Your task to perform on an android device: Add "razer naga" to the cart on ebay.com Image 0: 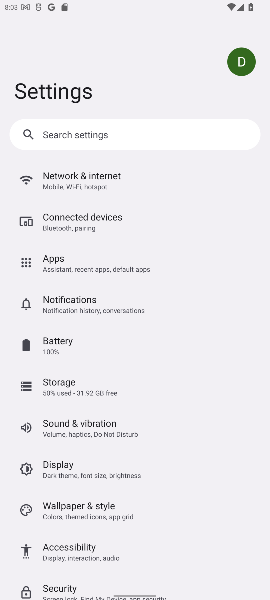
Step 0: press home button
Your task to perform on an android device: Add "razer naga" to the cart on ebay.com Image 1: 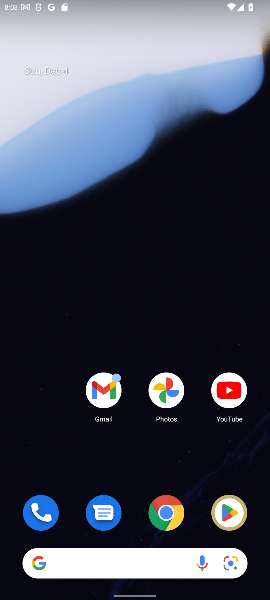
Step 1: click (162, 511)
Your task to perform on an android device: Add "razer naga" to the cart on ebay.com Image 2: 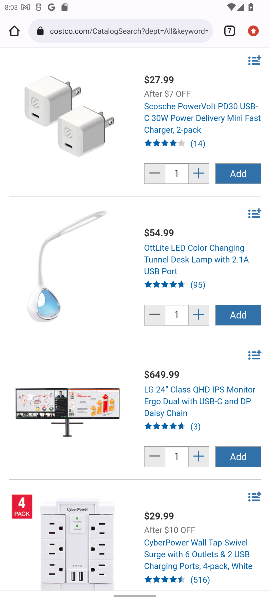
Step 2: click (229, 25)
Your task to perform on an android device: Add "razer naga" to the cart on ebay.com Image 3: 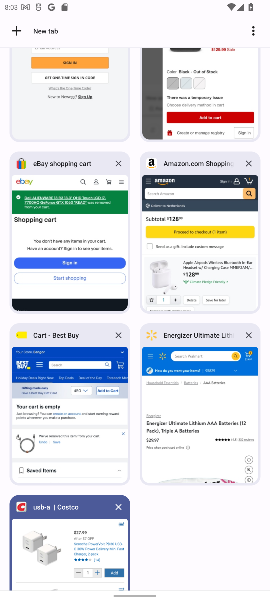
Step 3: click (84, 217)
Your task to perform on an android device: Add "razer naga" to the cart on ebay.com Image 4: 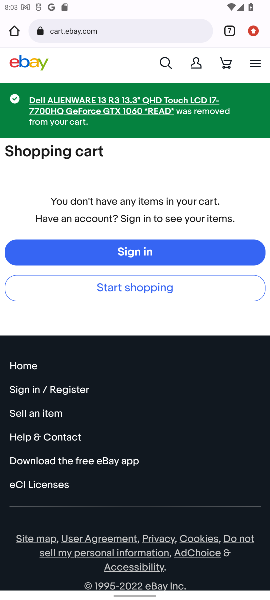
Step 4: click (163, 59)
Your task to perform on an android device: Add "razer naga" to the cart on ebay.com Image 5: 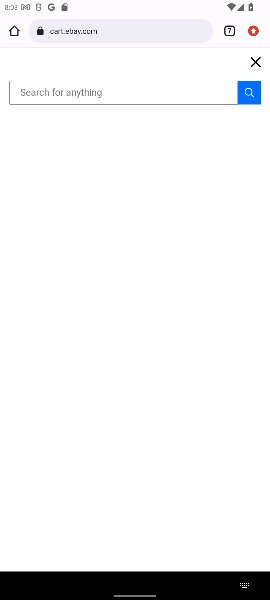
Step 5: type "razer naga"
Your task to perform on an android device: Add "razer naga" to the cart on ebay.com Image 6: 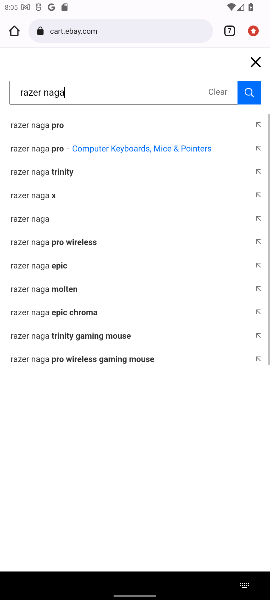
Step 6: click (249, 93)
Your task to perform on an android device: Add "razer naga" to the cart on ebay.com Image 7: 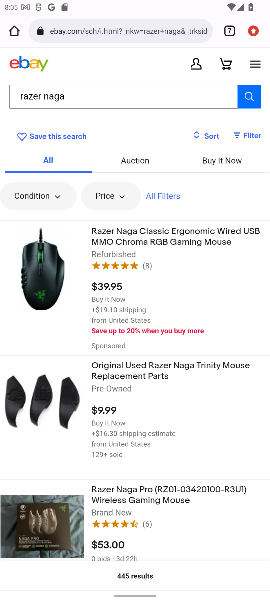
Step 7: click (169, 235)
Your task to perform on an android device: Add "razer naga" to the cart on ebay.com Image 8: 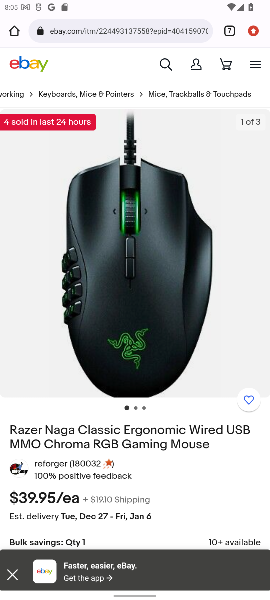
Step 8: drag from (189, 487) to (250, 195)
Your task to perform on an android device: Add "razer naga" to the cart on ebay.com Image 9: 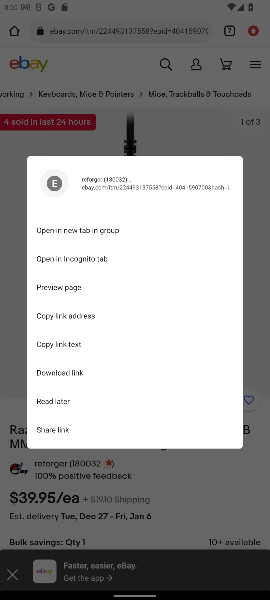
Step 9: click (147, 472)
Your task to perform on an android device: Add "razer naga" to the cart on ebay.com Image 10: 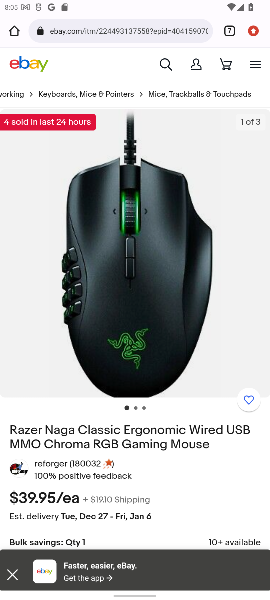
Step 10: drag from (164, 482) to (152, 6)
Your task to perform on an android device: Add "razer naga" to the cart on ebay.com Image 11: 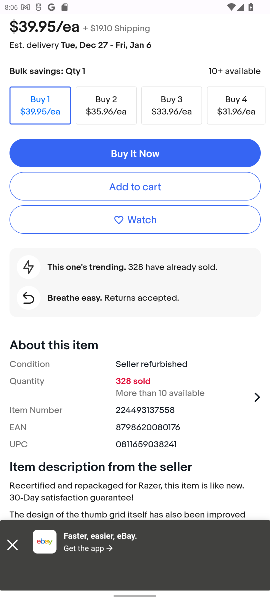
Step 11: click (128, 189)
Your task to perform on an android device: Add "razer naga" to the cart on ebay.com Image 12: 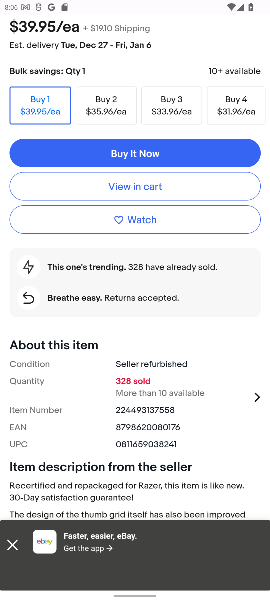
Step 12: task complete